Your task to perform on an android device: set an alarm Image 0: 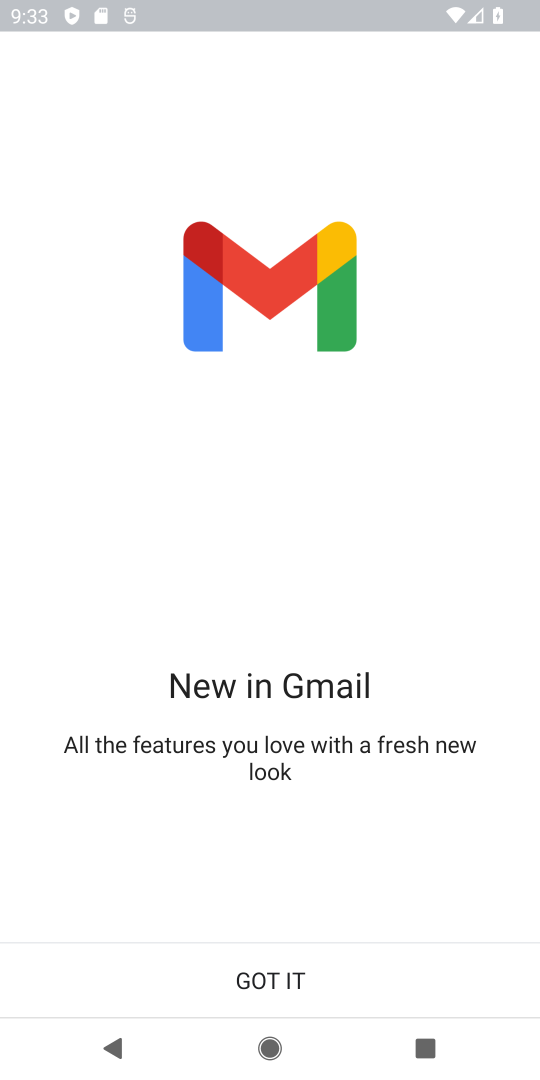
Step 0: press back button
Your task to perform on an android device: set an alarm Image 1: 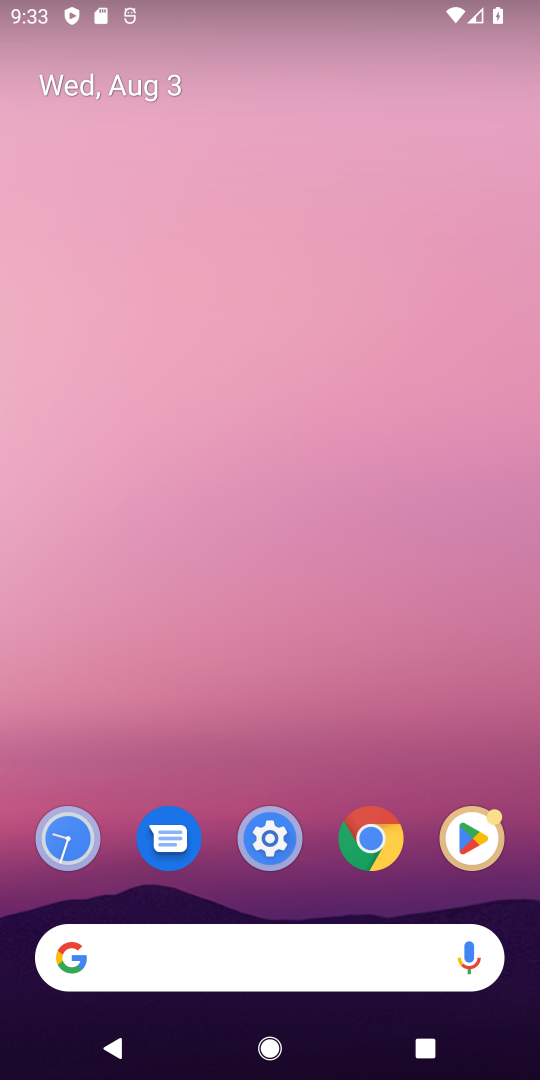
Step 1: drag from (263, 839) to (231, 25)
Your task to perform on an android device: set an alarm Image 2: 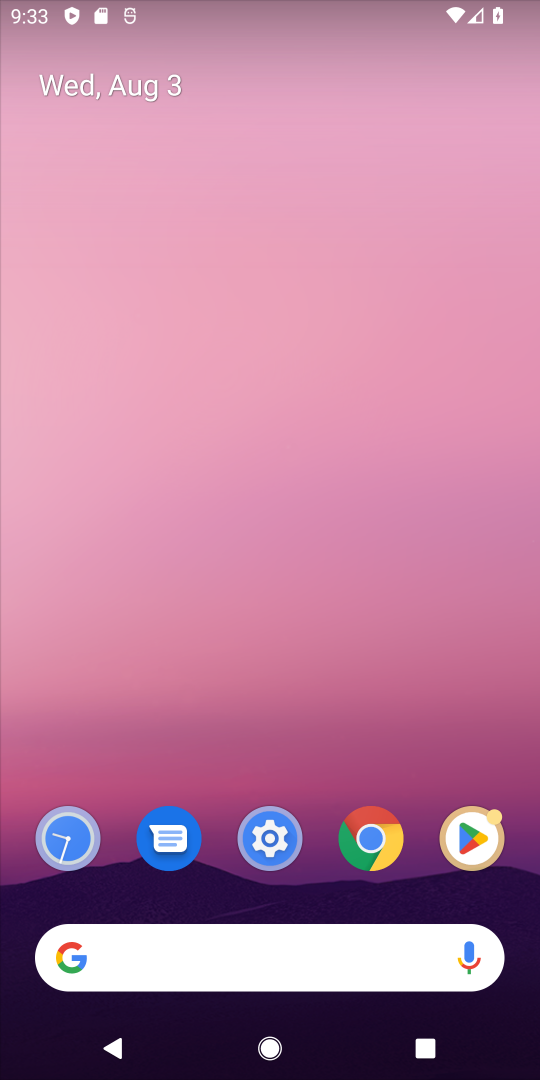
Step 2: drag from (276, 866) to (250, 210)
Your task to perform on an android device: set an alarm Image 3: 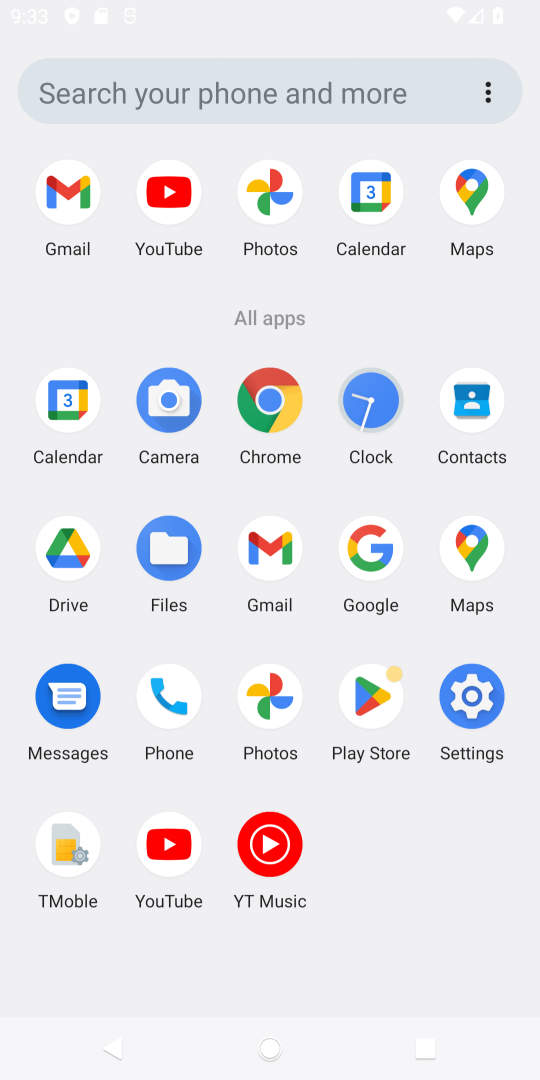
Step 3: drag from (287, 839) to (240, 255)
Your task to perform on an android device: set an alarm Image 4: 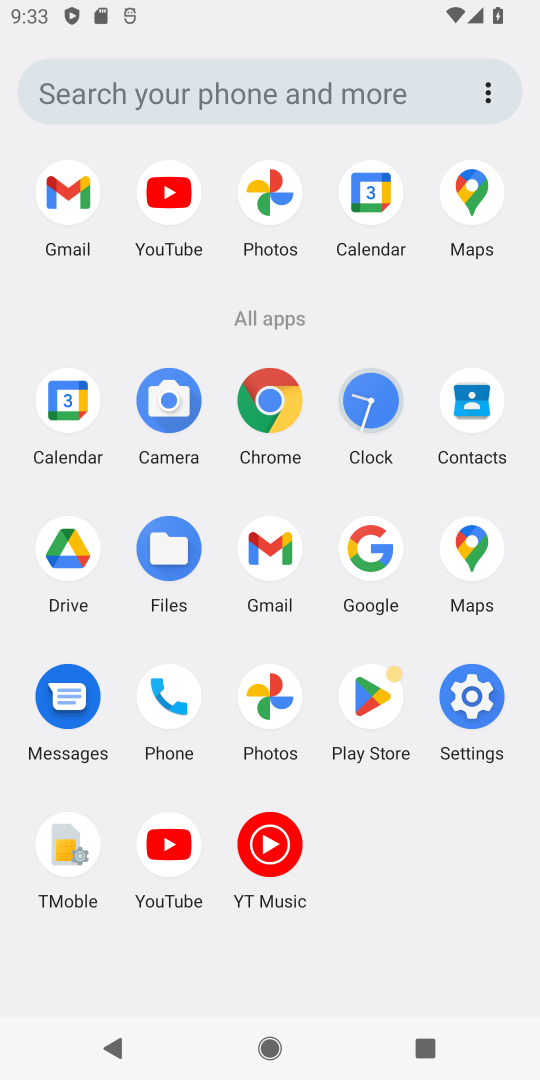
Step 4: click (368, 417)
Your task to perform on an android device: set an alarm Image 5: 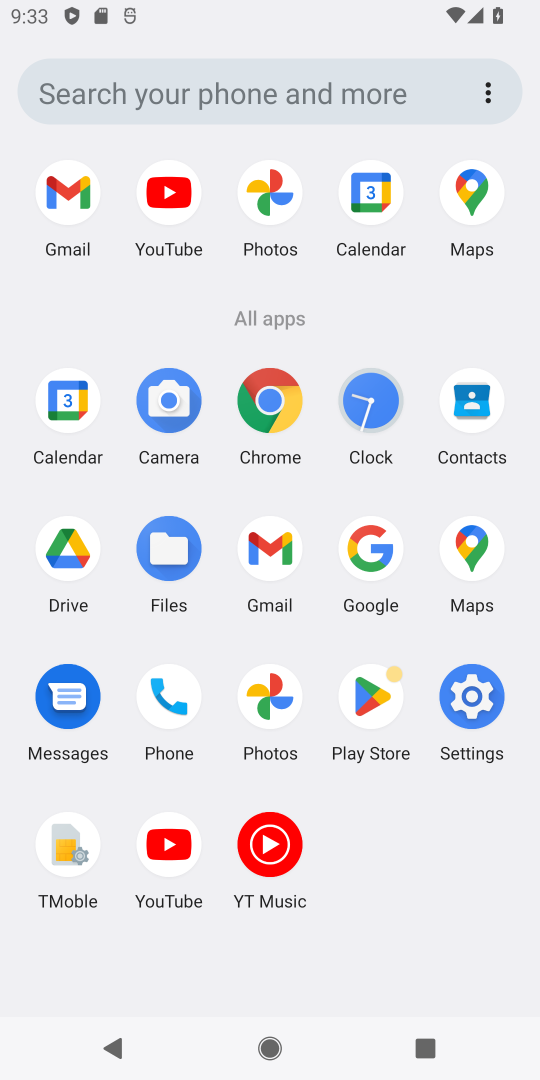
Step 5: click (368, 417)
Your task to perform on an android device: set an alarm Image 6: 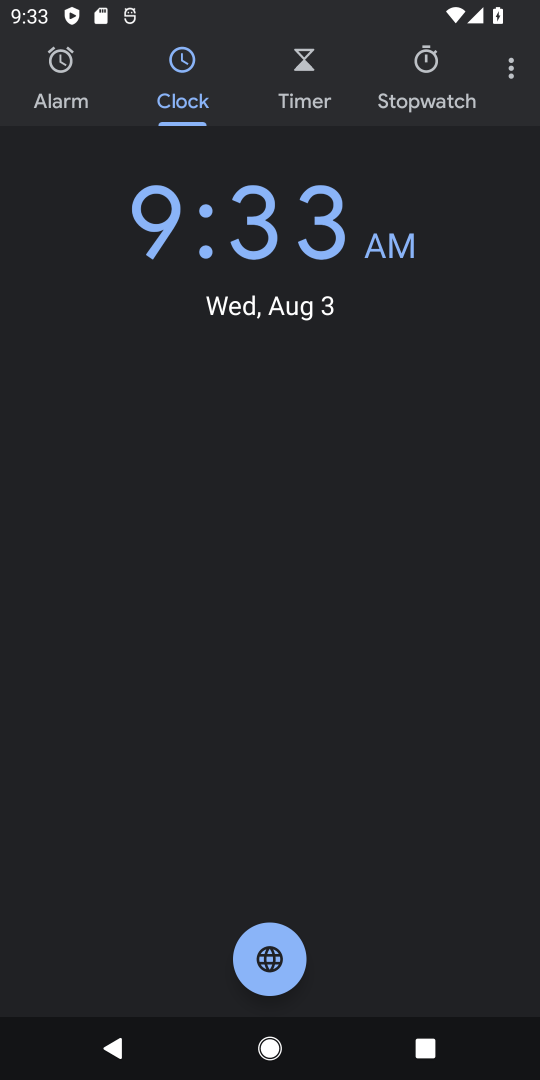
Step 6: click (41, 83)
Your task to perform on an android device: set an alarm Image 7: 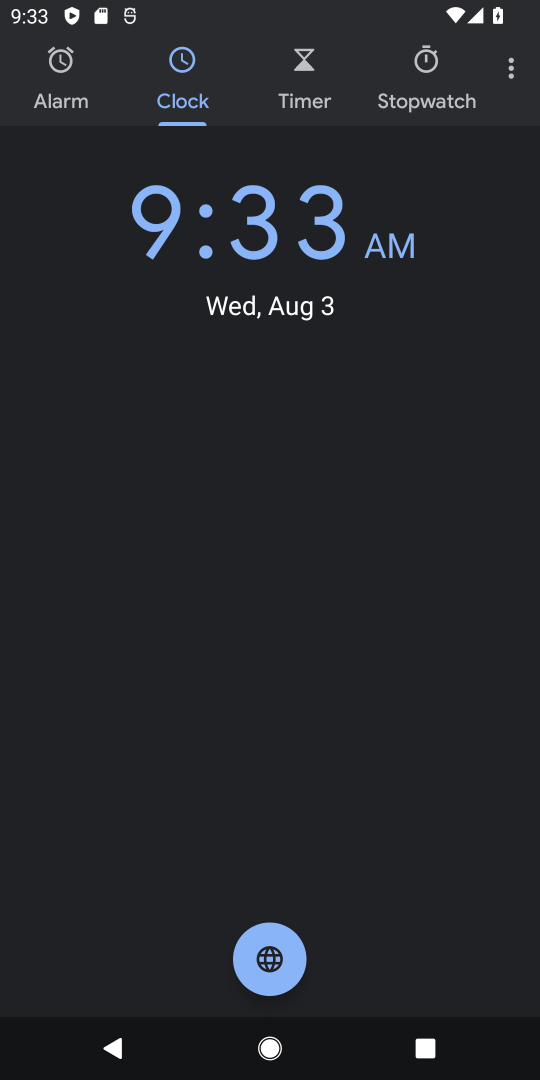
Step 7: click (51, 83)
Your task to perform on an android device: set an alarm Image 8: 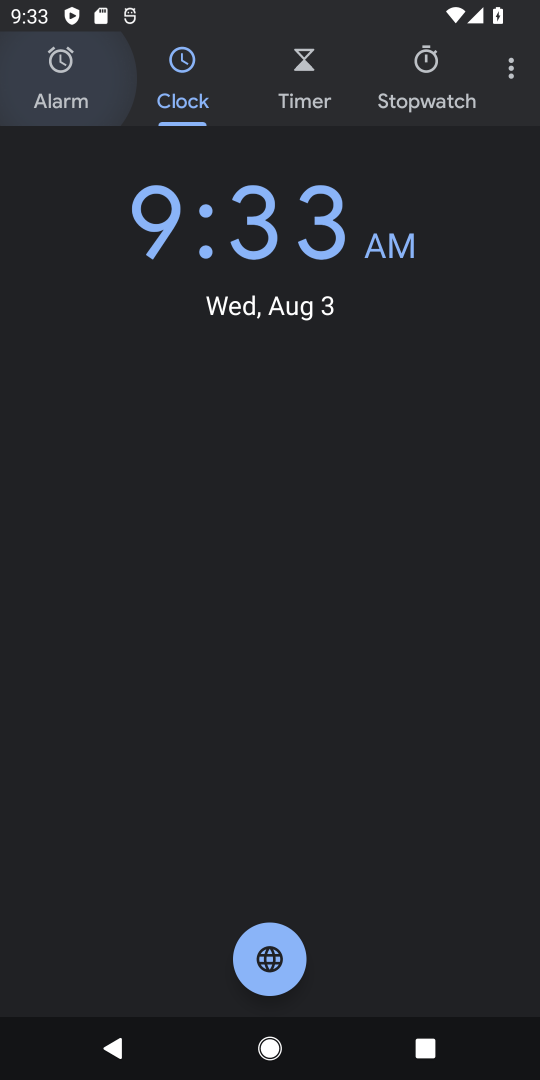
Step 8: click (52, 83)
Your task to perform on an android device: set an alarm Image 9: 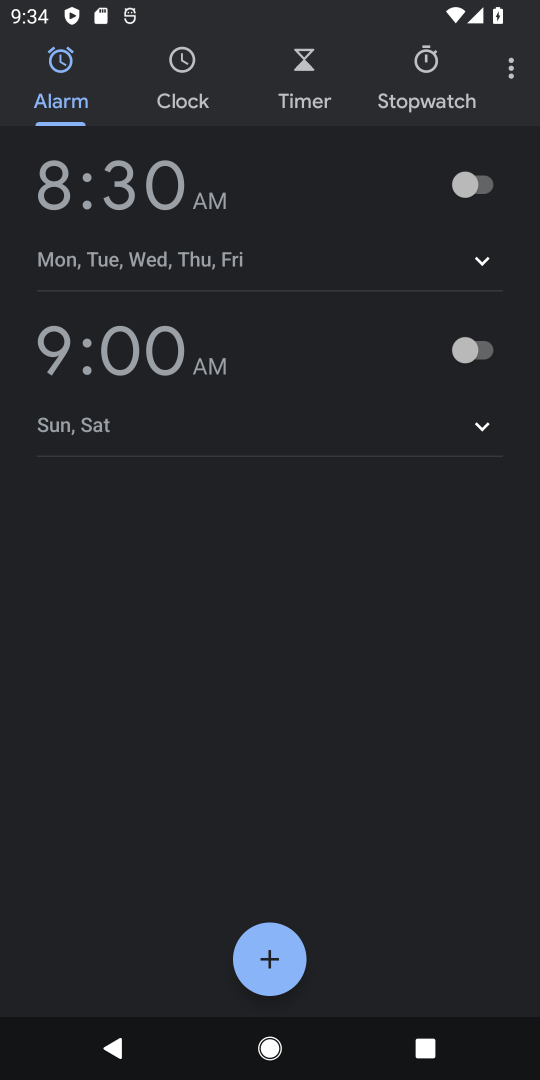
Step 9: click (463, 186)
Your task to perform on an android device: set an alarm Image 10: 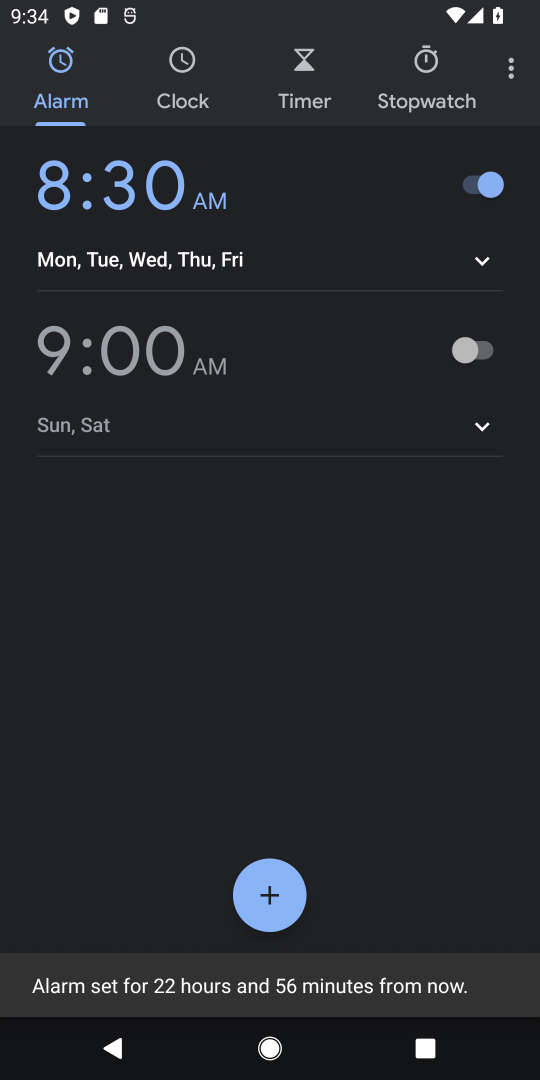
Step 10: task complete